Your task to perform on an android device: check storage Image 0: 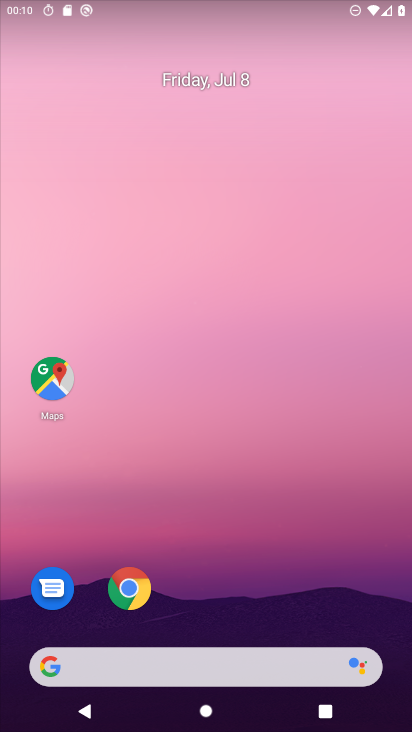
Step 0: drag from (271, 594) to (261, 62)
Your task to perform on an android device: check storage Image 1: 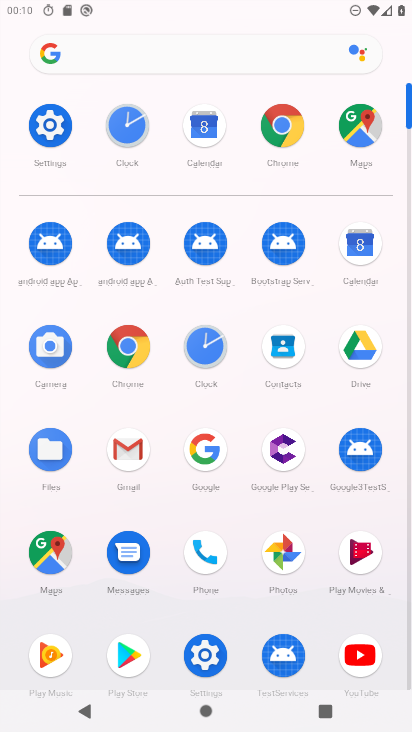
Step 1: click (62, 122)
Your task to perform on an android device: check storage Image 2: 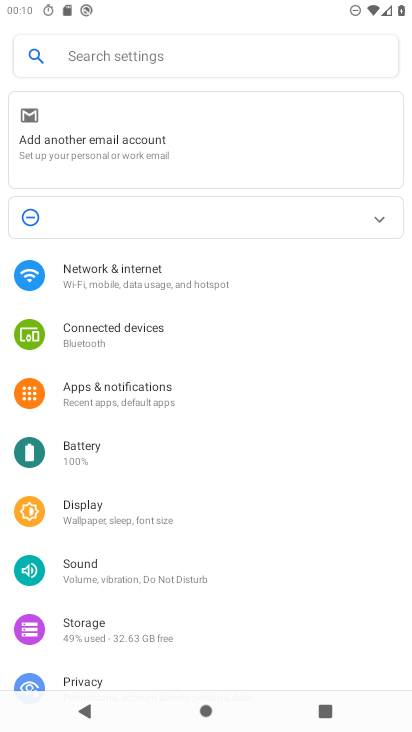
Step 2: click (97, 628)
Your task to perform on an android device: check storage Image 3: 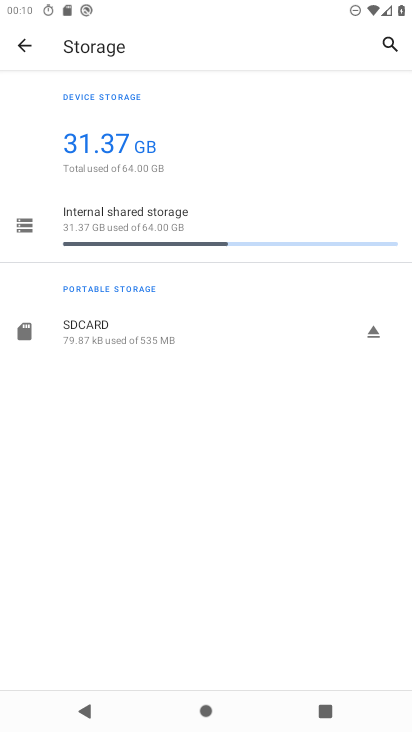
Step 3: task complete